Your task to perform on an android device: set the stopwatch Image 0: 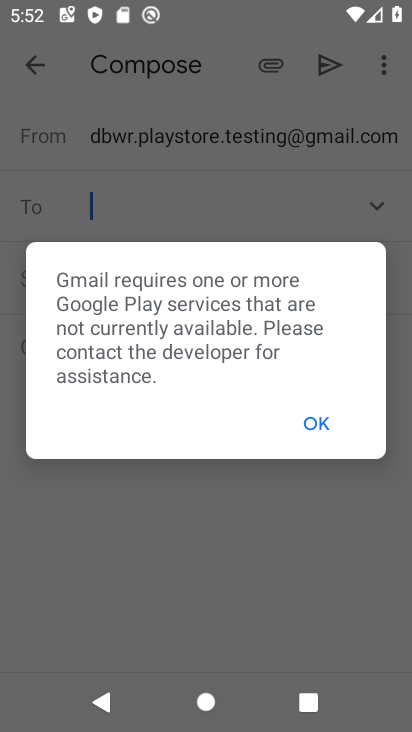
Step 0: press back button
Your task to perform on an android device: set the stopwatch Image 1: 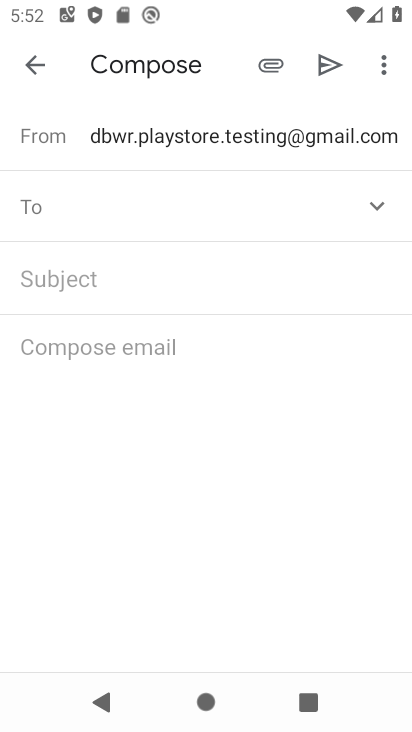
Step 1: press back button
Your task to perform on an android device: set the stopwatch Image 2: 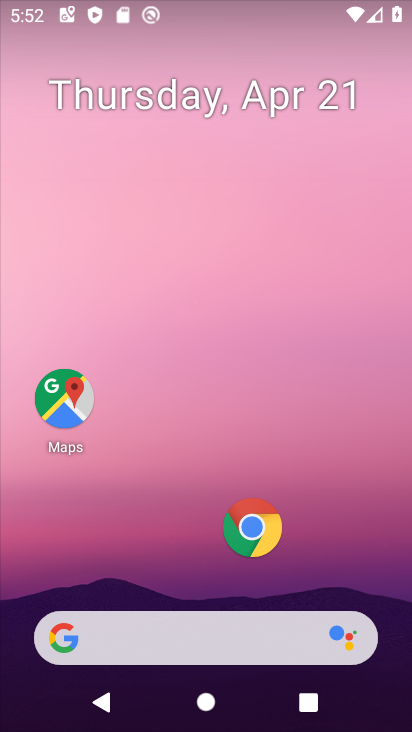
Step 2: drag from (171, 476) to (221, 102)
Your task to perform on an android device: set the stopwatch Image 3: 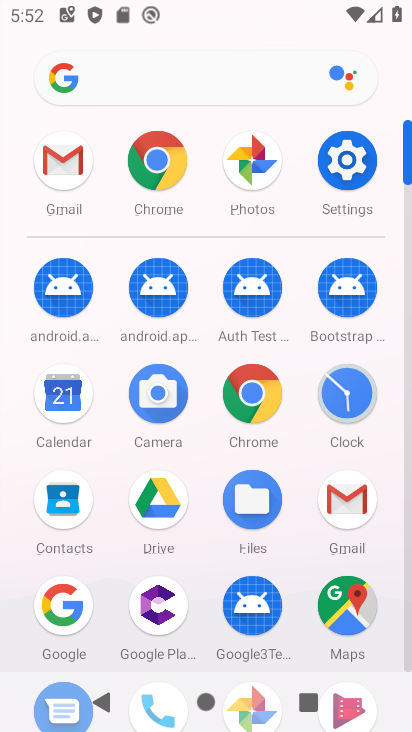
Step 3: click (356, 391)
Your task to perform on an android device: set the stopwatch Image 4: 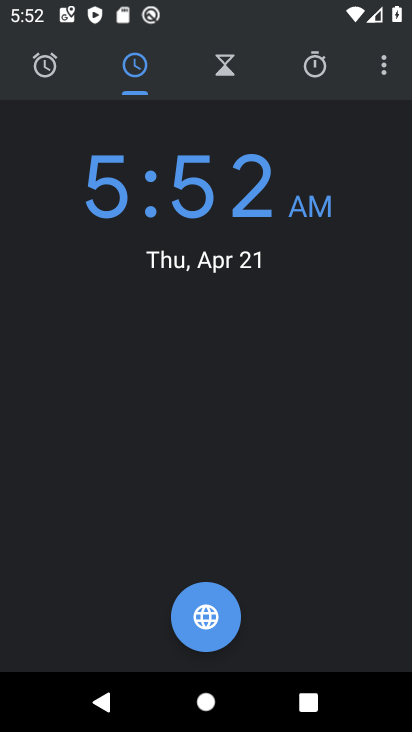
Step 4: click (332, 65)
Your task to perform on an android device: set the stopwatch Image 5: 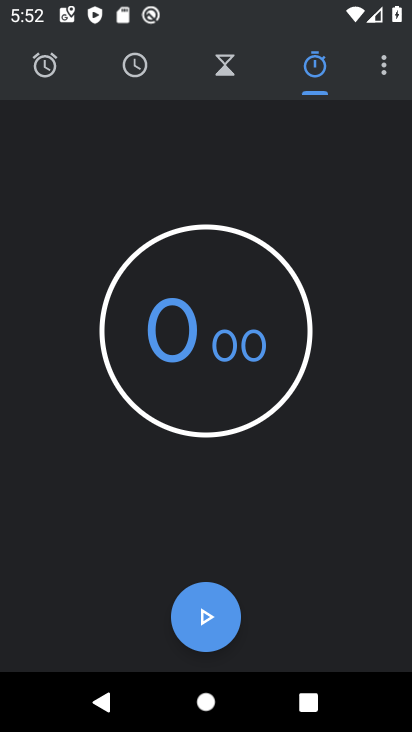
Step 5: click (182, 335)
Your task to perform on an android device: set the stopwatch Image 6: 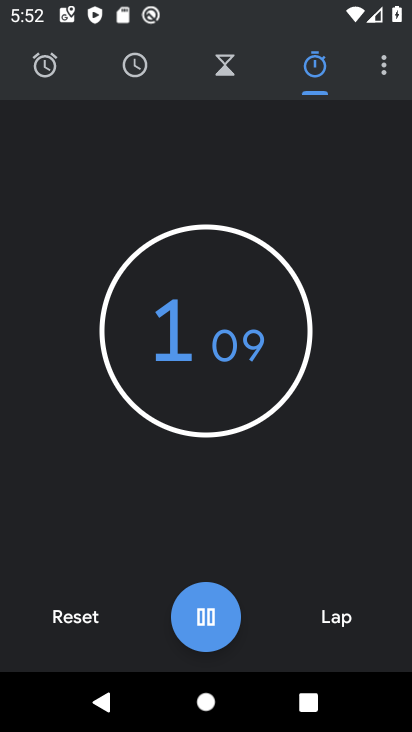
Step 6: click (182, 328)
Your task to perform on an android device: set the stopwatch Image 7: 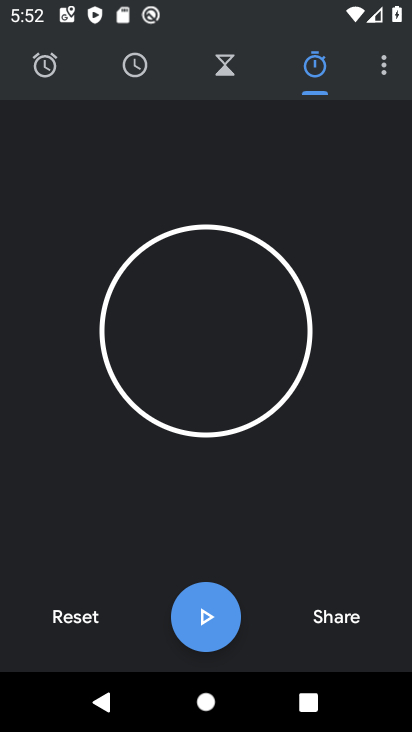
Step 7: task complete